Your task to perform on an android device: Is it going to rain this weekend? Image 0: 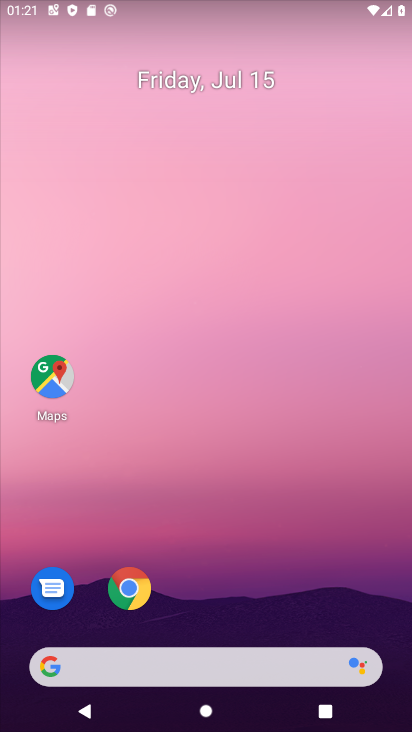
Step 0: drag from (1, 275) to (398, 272)
Your task to perform on an android device: Is it going to rain this weekend? Image 1: 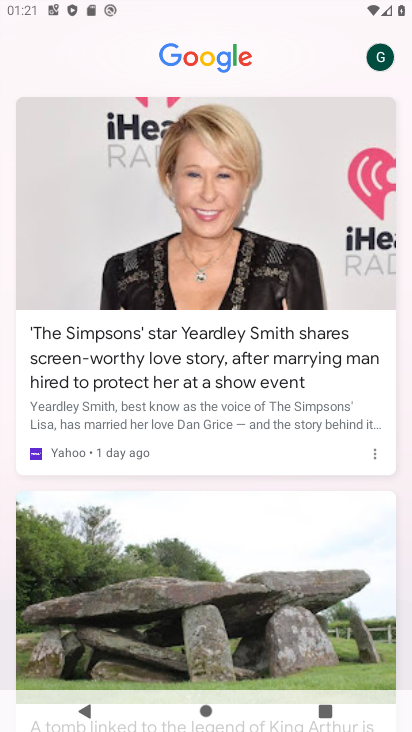
Step 1: task complete